Your task to perform on an android device: View the shopping cart on ebay. Add "razer kraken" to the cart on ebay, then select checkout. Image 0: 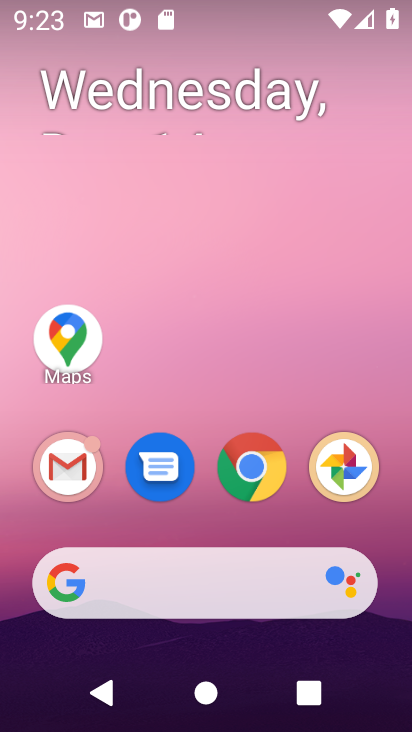
Step 0: click (243, 474)
Your task to perform on an android device: View the shopping cart on ebay. Add "razer kraken" to the cart on ebay, then select checkout. Image 1: 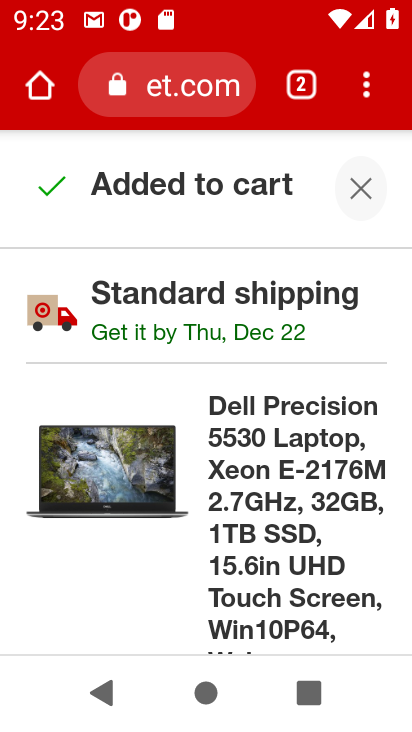
Step 1: click (172, 107)
Your task to perform on an android device: View the shopping cart on ebay. Add "razer kraken" to the cart on ebay, then select checkout. Image 2: 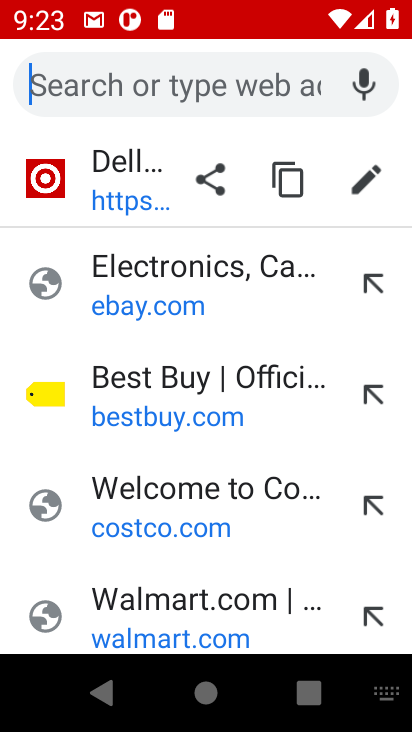
Step 2: type "razer karken"
Your task to perform on an android device: View the shopping cart on ebay. Add "razer kraken" to the cart on ebay, then select checkout. Image 3: 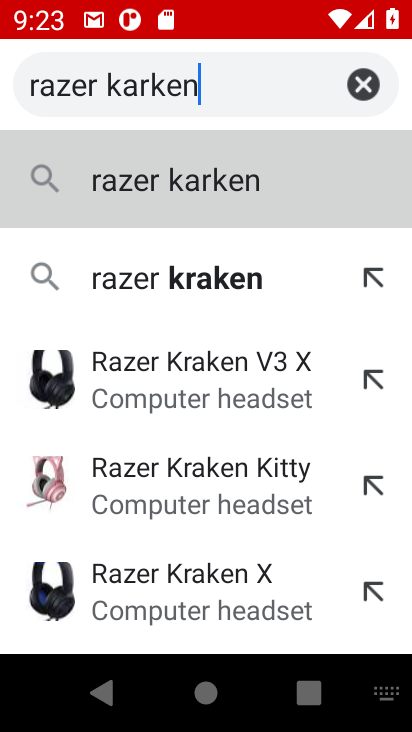
Step 3: click (169, 272)
Your task to perform on an android device: View the shopping cart on ebay. Add "razer kraken" to the cart on ebay, then select checkout. Image 4: 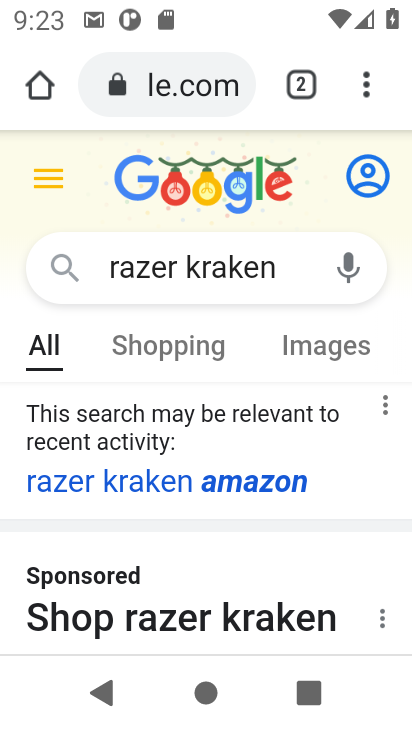
Step 4: click (217, 497)
Your task to perform on an android device: View the shopping cart on ebay. Add "razer kraken" to the cart on ebay, then select checkout. Image 5: 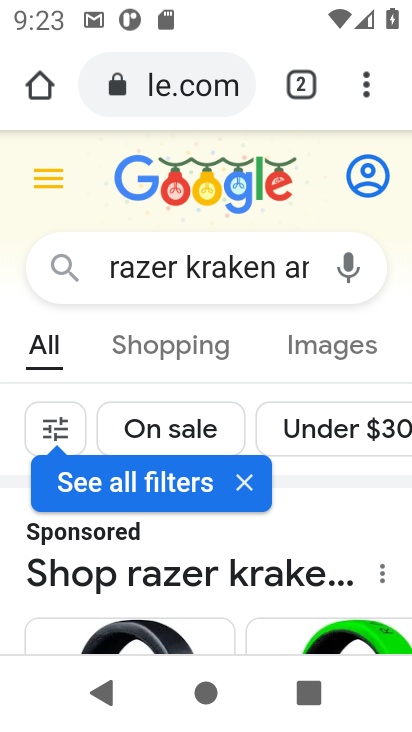
Step 5: drag from (241, 587) to (200, 439)
Your task to perform on an android device: View the shopping cart on ebay. Add "razer kraken" to the cart on ebay, then select checkout. Image 6: 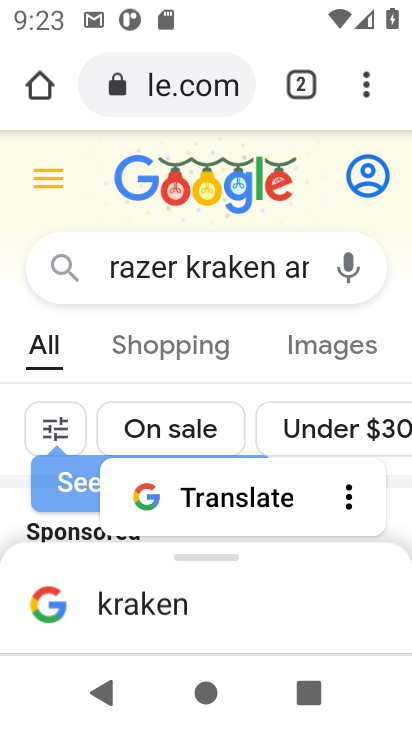
Step 6: click (398, 506)
Your task to perform on an android device: View the shopping cart on ebay. Add "razer kraken" to the cart on ebay, then select checkout. Image 7: 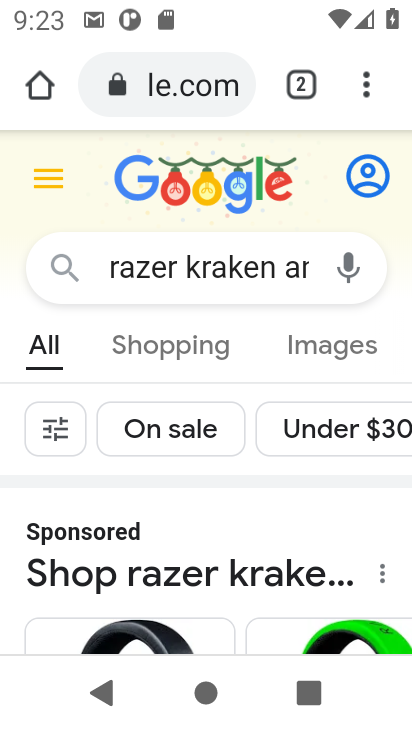
Step 7: drag from (236, 613) to (220, 144)
Your task to perform on an android device: View the shopping cart on ebay. Add "razer kraken" to the cart on ebay, then select checkout. Image 8: 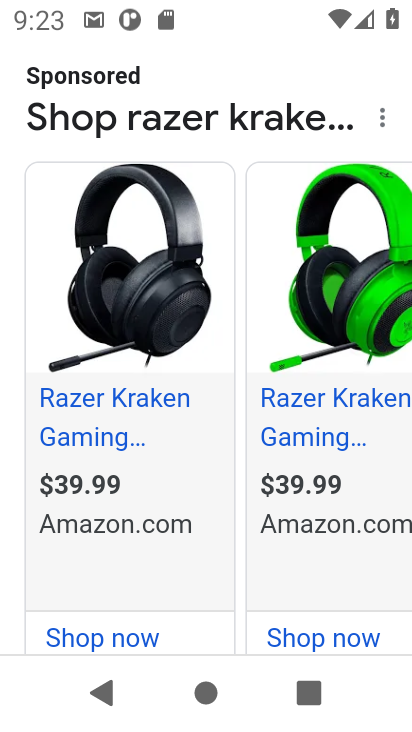
Step 8: drag from (217, 621) to (204, 431)
Your task to perform on an android device: View the shopping cart on ebay. Add "razer kraken" to the cart on ebay, then select checkout. Image 9: 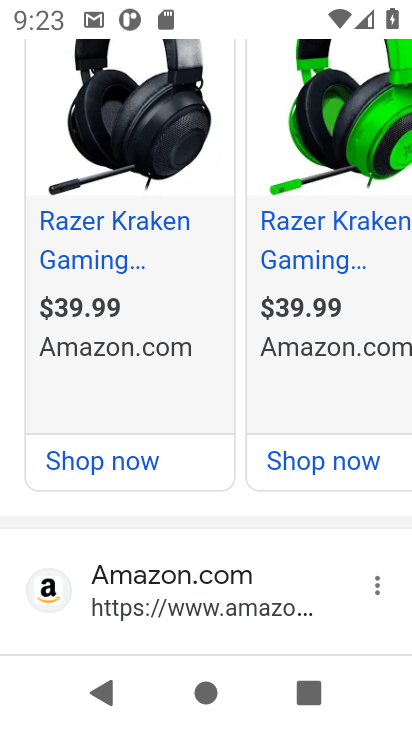
Step 9: click (204, 556)
Your task to perform on an android device: View the shopping cart on ebay. Add "razer kraken" to the cart on ebay, then select checkout. Image 10: 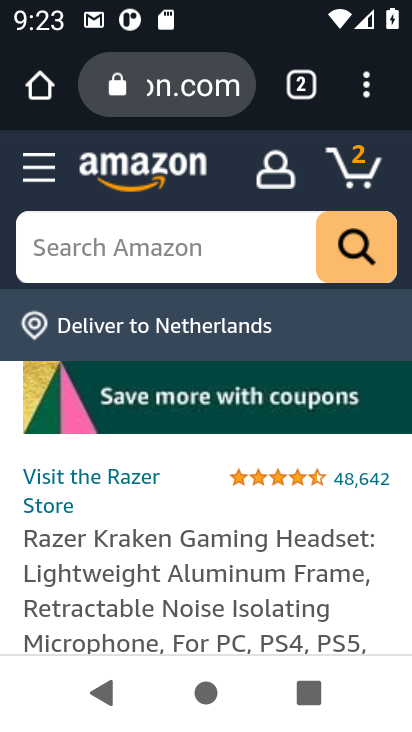
Step 10: click (140, 245)
Your task to perform on an android device: View the shopping cart on ebay. Add "razer kraken" to the cart on ebay, then select checkout. Image 11: 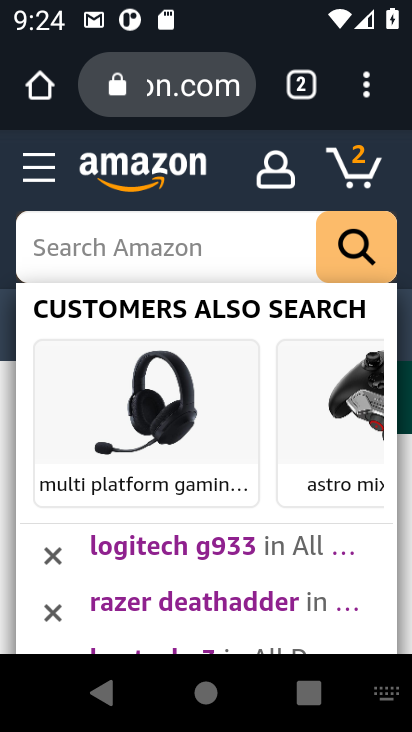
Step 11: type "razer karken"
Your task to perform on an android device: View the shopping cart on ebay. Add "razer kraken" to the cart on ebay, then select checkout. Image 12: 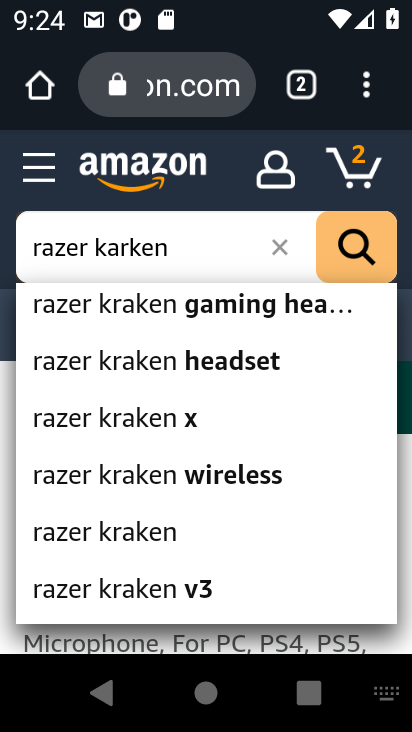
Step 12: click (105, 400)
Your task to perform on an android device: View the shopping cart on ebay. Add "razer kraken" to the cart on ebay, then select checkout. Image 13: 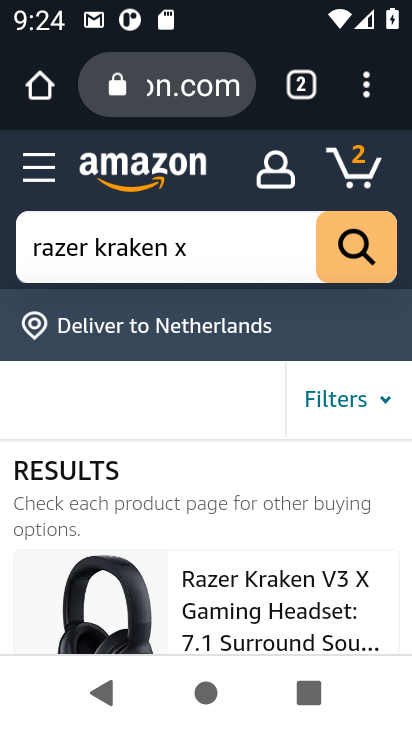
Step 13: click (331, 258)
Your task to perform on an android device: View the shopping cart on ebay. Add "razer kraken" to the cart on ebay, then select checkout. Image 14: 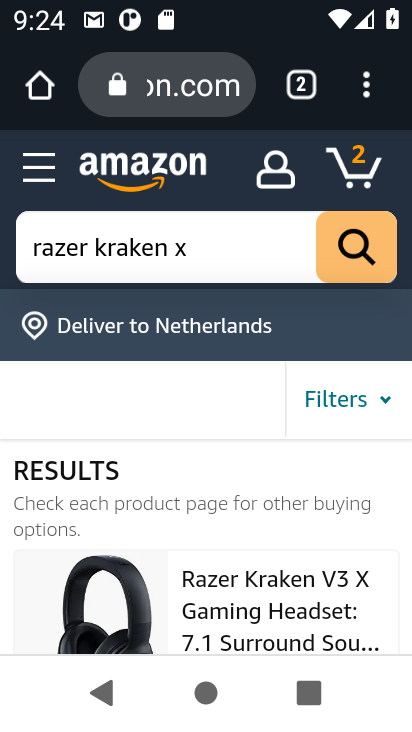
Step 14: click (299, 589)
Your task to perform on an android device: View the shopping cart on ebay. Add "razer kraken" to the cart on ebay, then select checkout. Image 15: 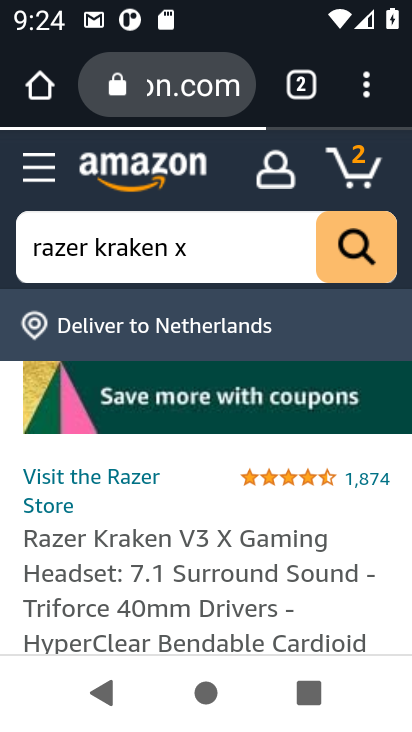
Step 15: task complete